Your task to perform on an android device: turn on bluetooth scan Image 0: 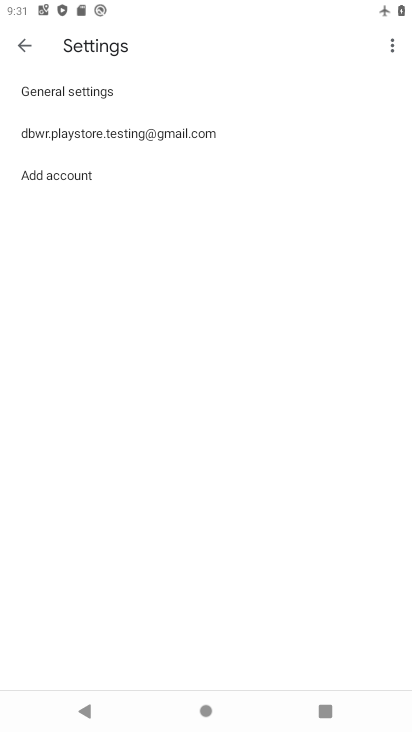
Step 0: press home button
Your task to perform on an android device: turn on bluetooth scan Image 1: 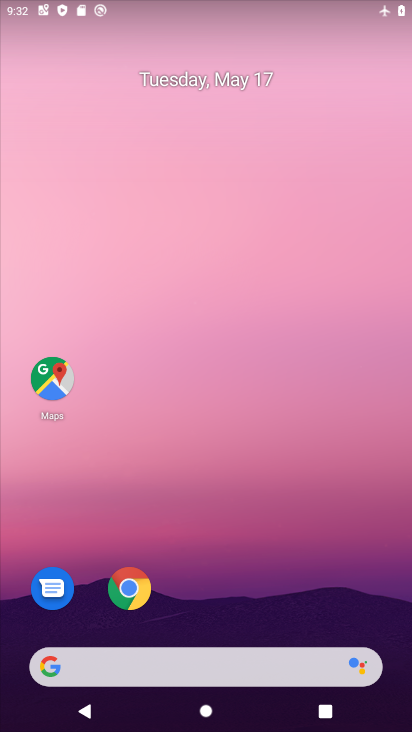
Step 1: drag from (234, 639) to (235, 10)
Your task to perform on an android device: turn on bluetooth scan Image 2: 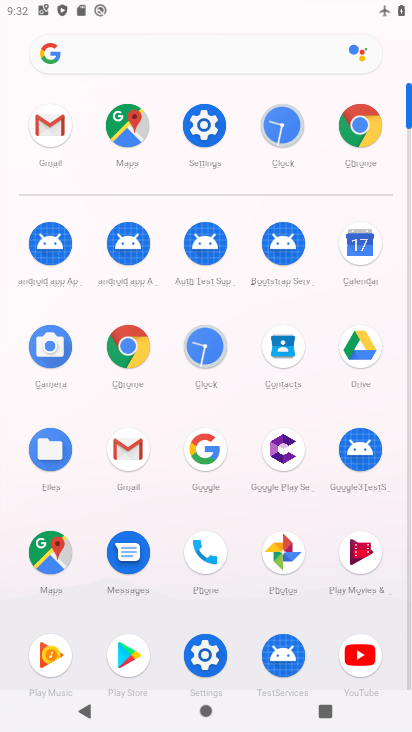
Step 2: click (200, 129)
Your task to perform on an android device: turn on bluetooth scan Image 3: 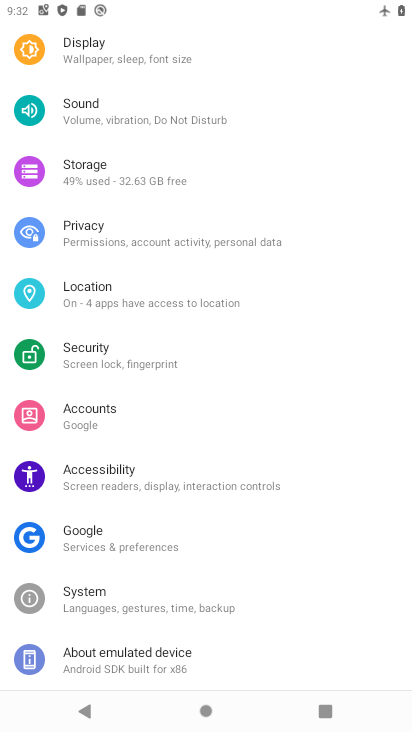
Step 3: drag from (157, 161) to (170, 534)
Your task to perform on an android device: turn on bluetooth scan Image 4: 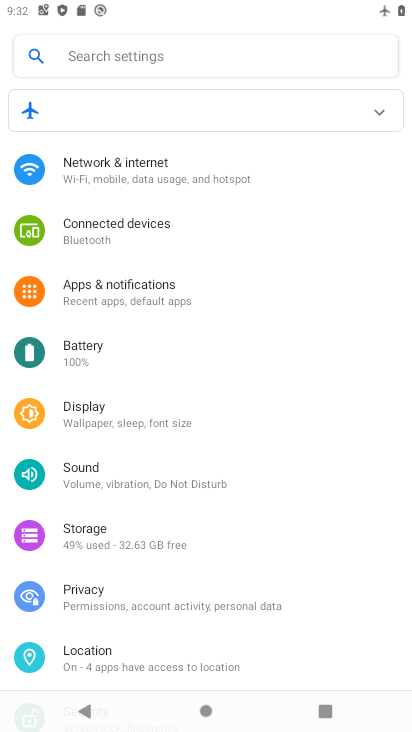
Step 4: click (124, 682)
Your task to perform on an android device: turn on bluetooth scan Image 5: 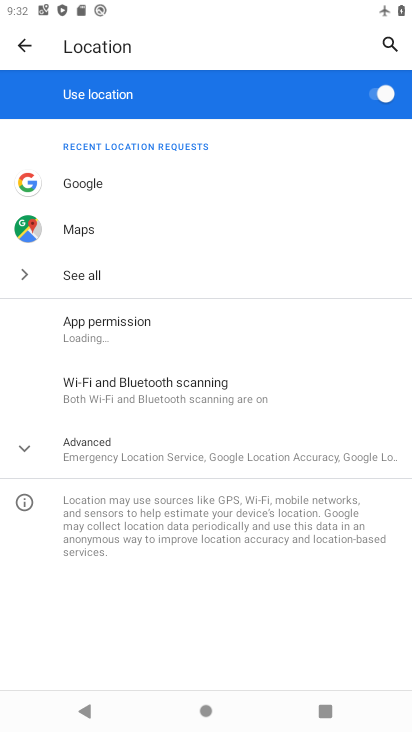
Step 5: click (190, 401)
Your task to perform on an android device: turn on bluetooth scan Image 6: 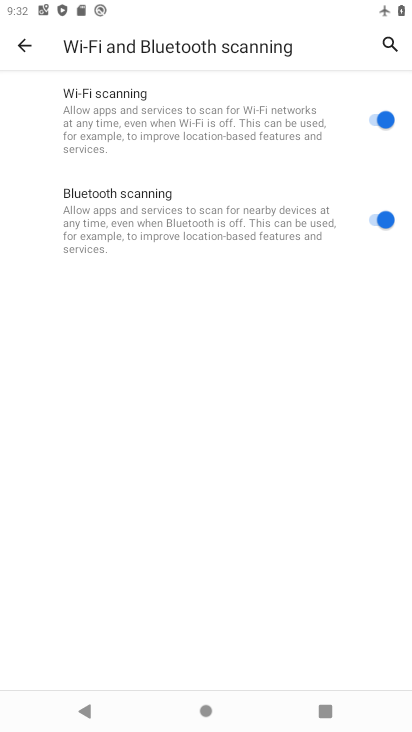
Step 6: task complete